Your task to perform on an android device: install app "Life360: Find Family & Friends" Image 0: 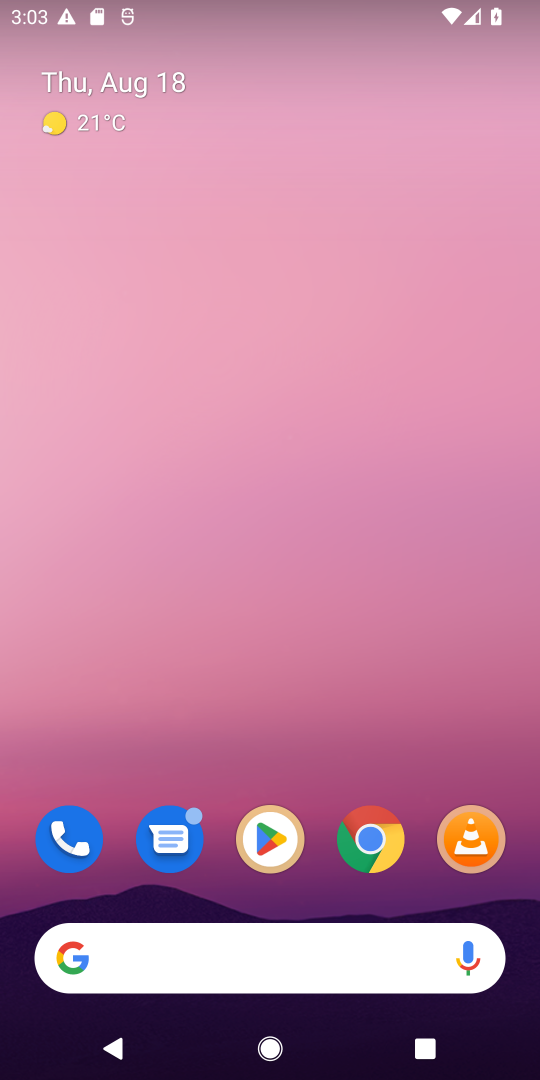
Step 0: click (260, 845)
Your task to perform on an android device: install app "Life360: Find Family & Friends" Image 1: 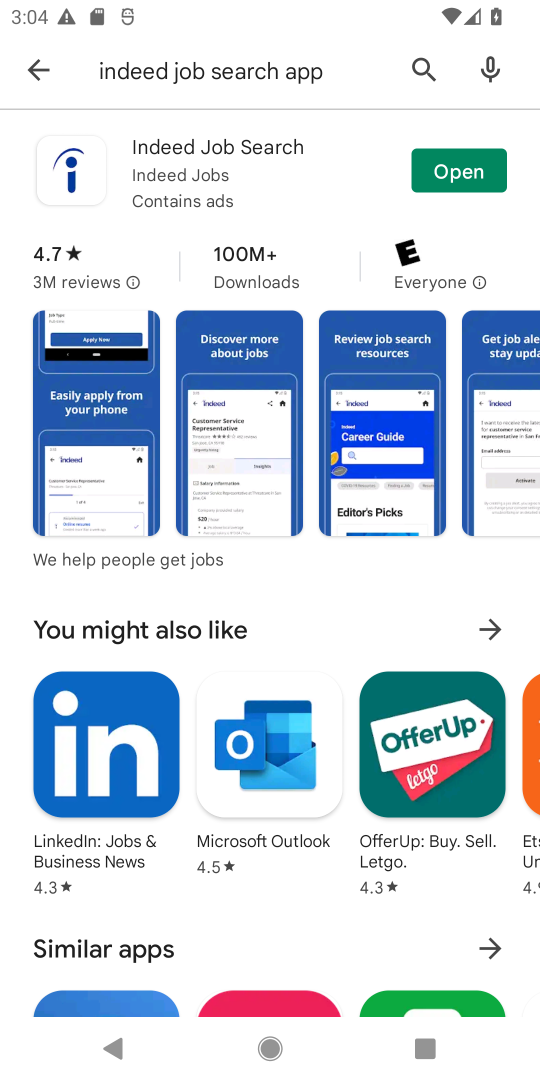
Step 1: click (52, 67)
Your task to perform on an android device: install app "Life360: Find Family & Friends" Image 2: 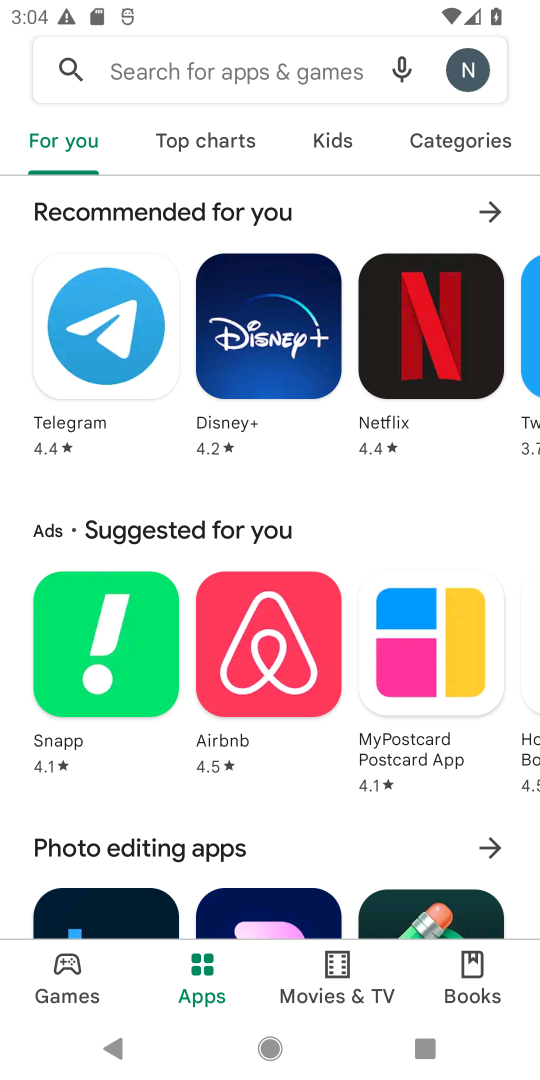
Step 2: click (224, 63)
Your task to perform on an android device: install app "Life360: Find Family & Friends" Image 3: 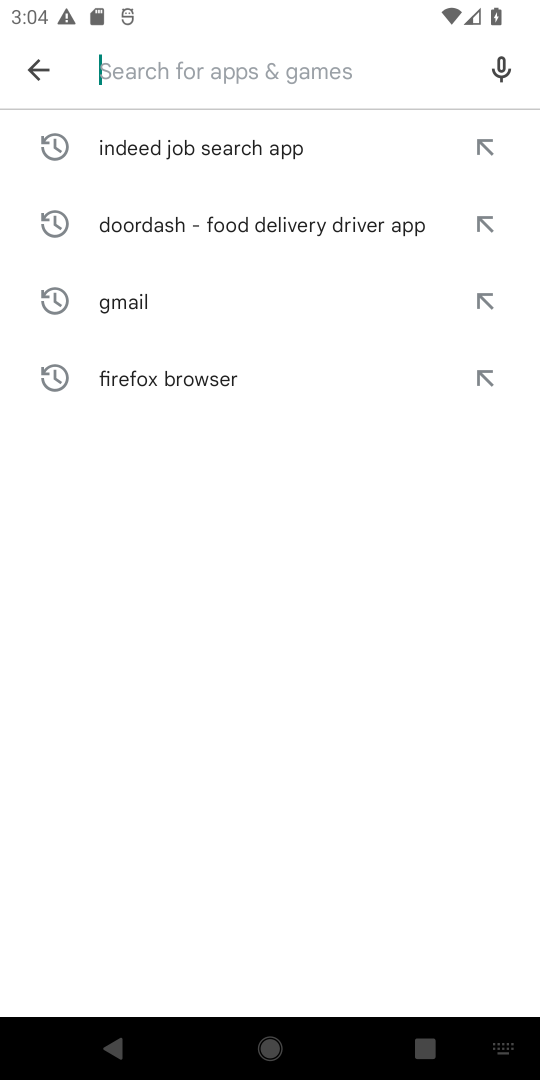
Step 3: type "Life360: Find Family & Friends"
Your task to perform on an android device: install app "Life360: Find Family & Friends" Image 4: 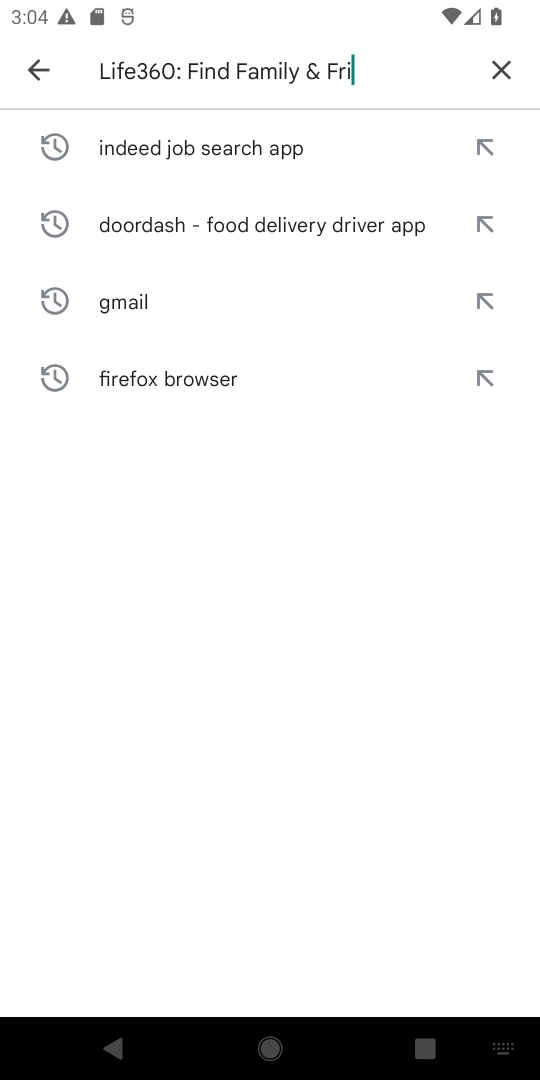
Step 4: type ""
Your task to perform on an android device: install app "Life360: Find Family & Friends" Image 5: 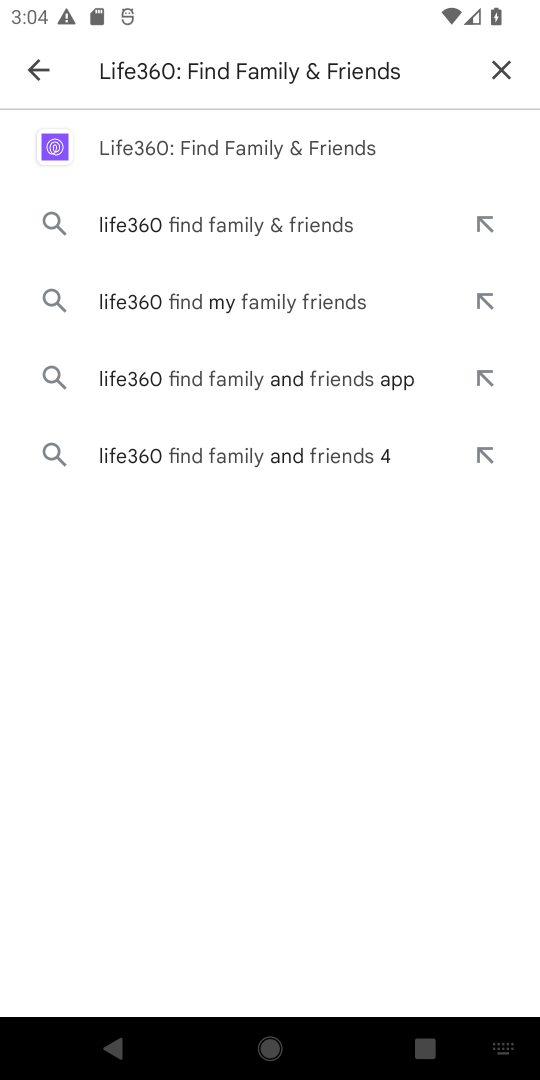
Step 5: click (150, 151)
Your task to perform on an android device: install app "Life360: Find Family & Friends" Image 6: 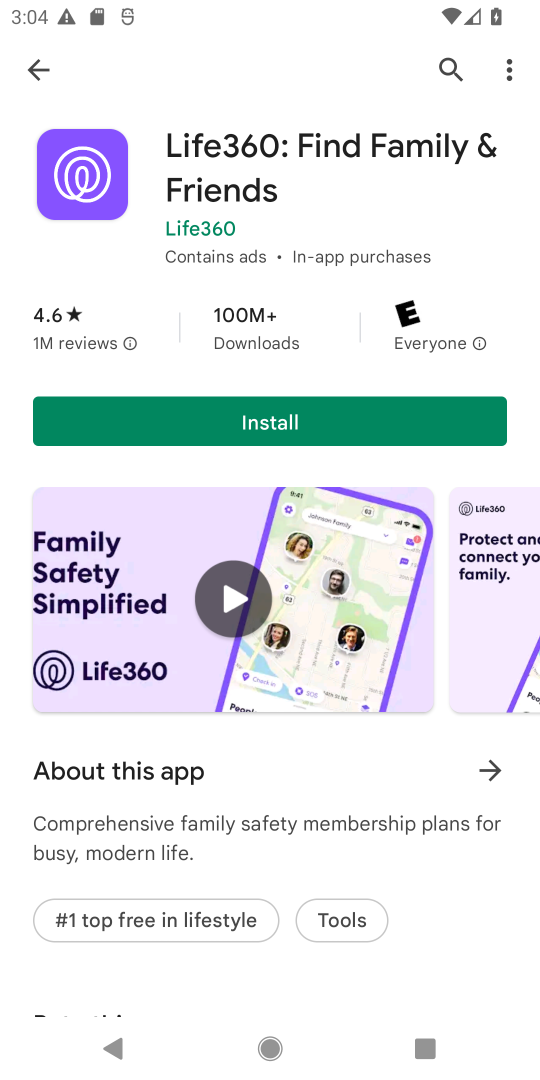
Step 6: click (236, 430)
Your task to perform on an android device: install app "Life360: Find Family & Friends" Image 7: 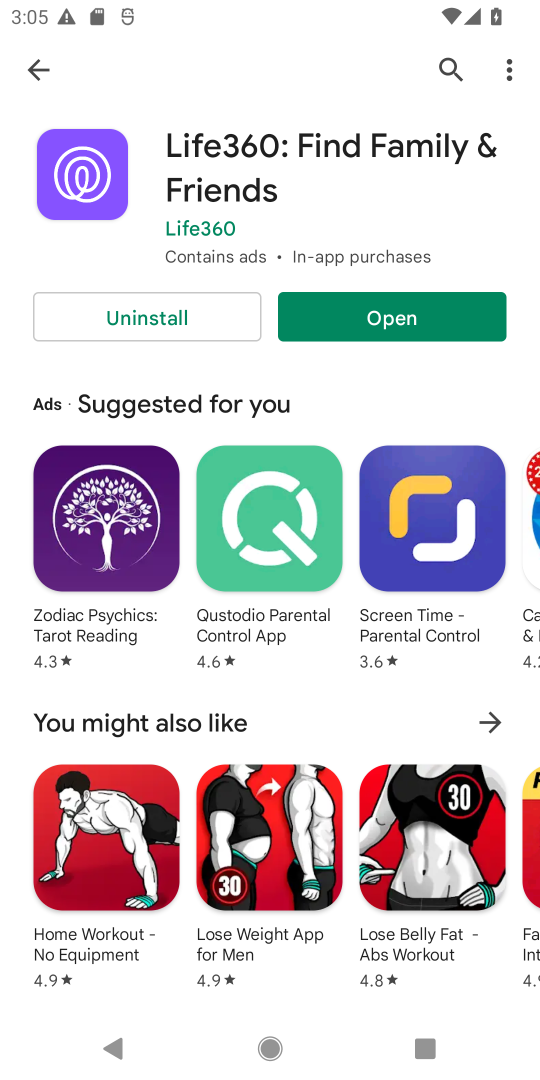
Step 7: click (373, 298)
Your task to perform on an android device: install app "Life360: Find Family & Friends" Image 8: 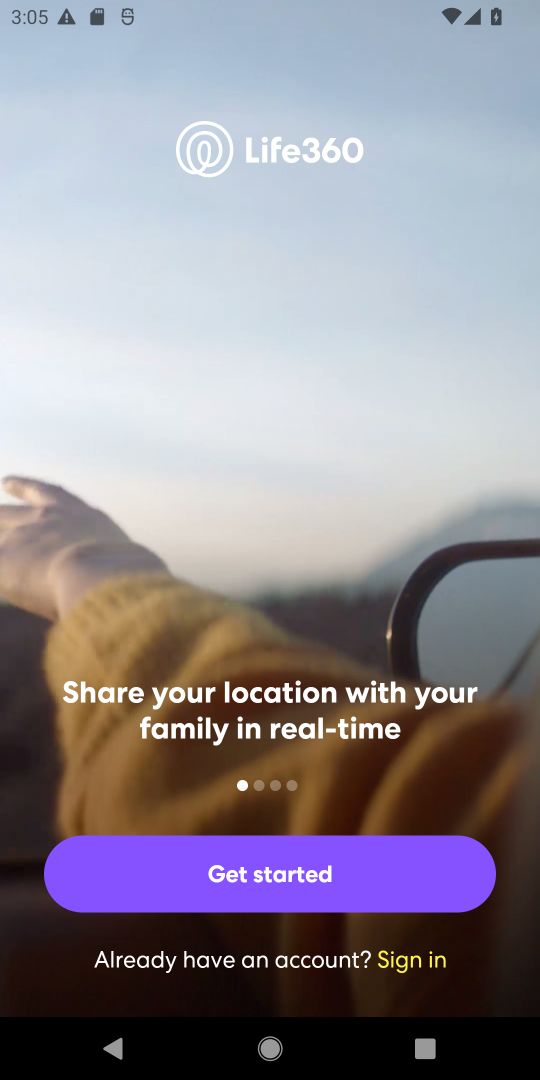
Step 8: task complete